Your task to perform on an android device: Open CNN.com Image 0: 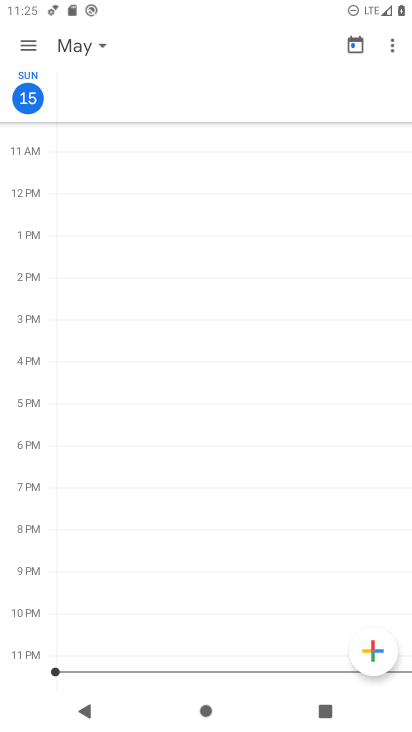
Step 0: press home button
Your task to perform on an android device: Open CNN.com Image 1: 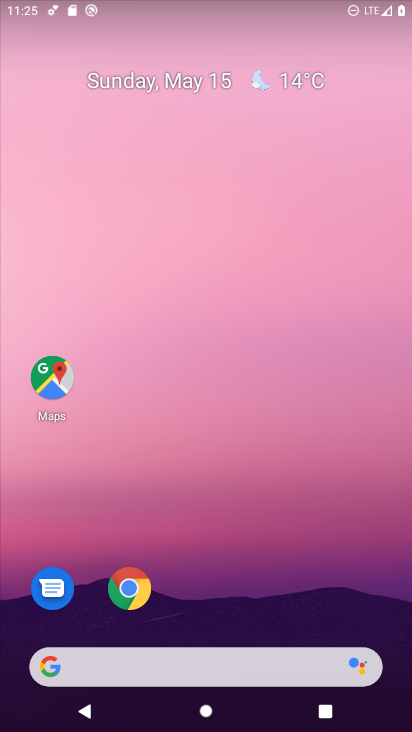
Step 1: click (138, 594)
Your task to perform on an android device: Open CNN.com Image 2: 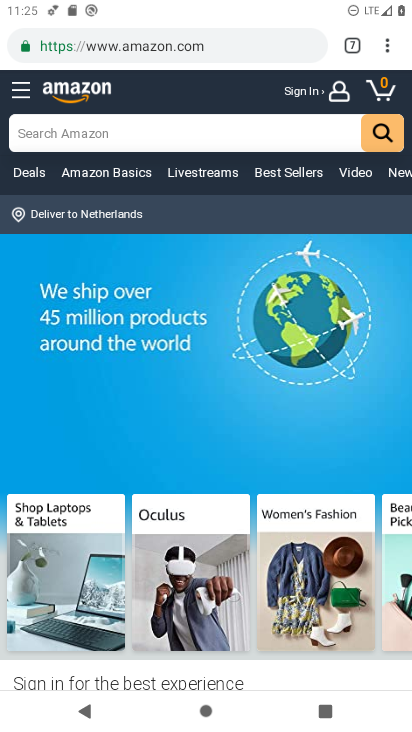
Step 2: click (220, 36)
Your task to perform on an android device: Open CNN.com Image 3: 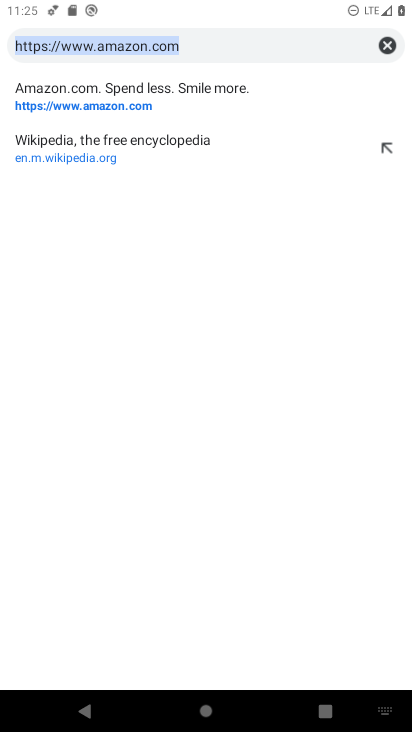
Step 3: type "CNN.com"
Your task to perform on an android device: Open CNN.com Image 4: 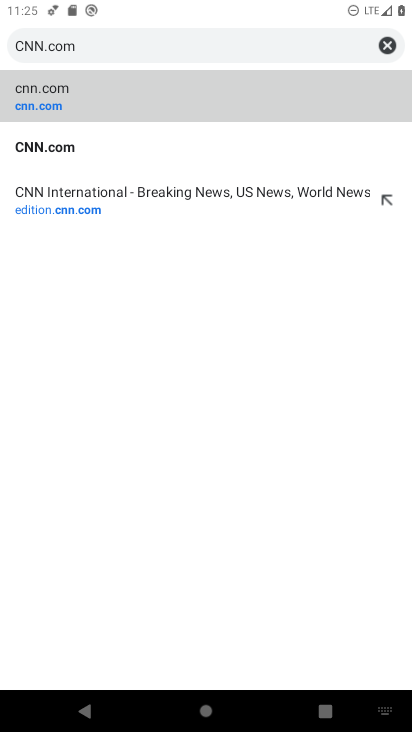
Step 4: click (60, 105)
Your task to perform on an android device: Open CNN.com Image 5: 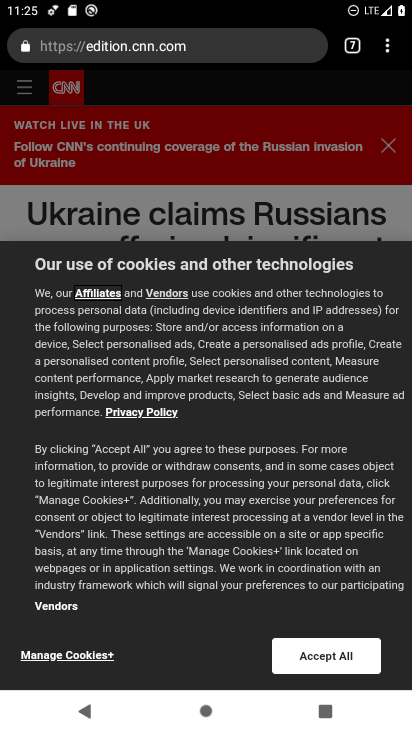
Step 5: task complete